Your task to perform on an android device: Show me the alarms in the clock app Image 0: 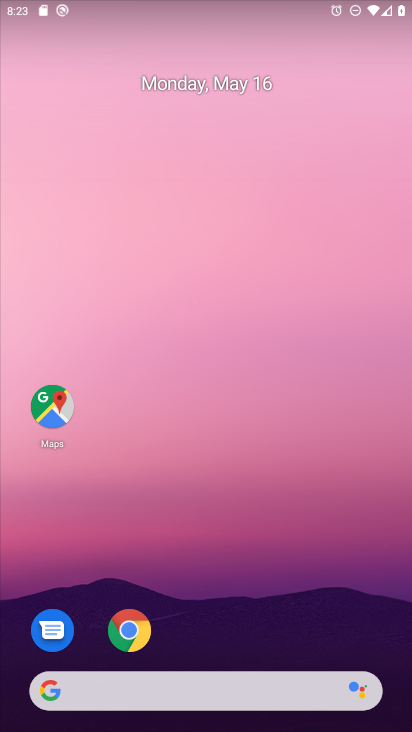
Step 0: drag from (230, 603) to (189, 274)
Your task to perform on an android device: Show me the alarms in the clock app Image 1: 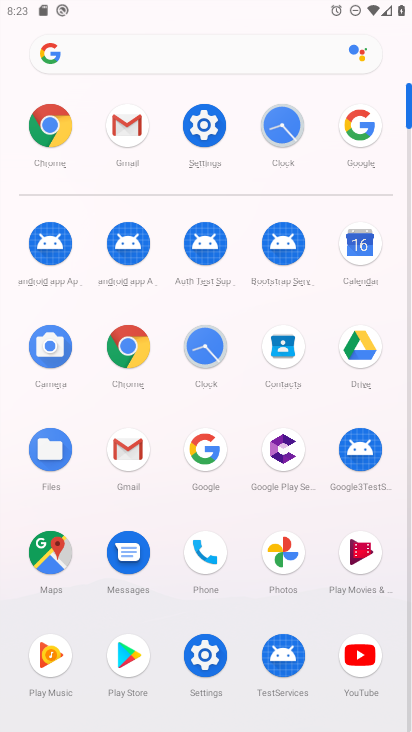
Step 1: click (290, 126)
Your task to perform on an android device: Show me the alarms in the clock app Image 2: 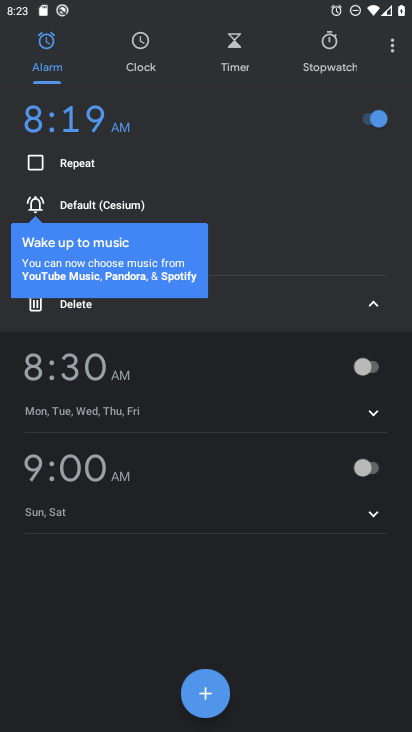
Step 2: task complete